Your task to perform on an android device: change notifications settings Image 0: 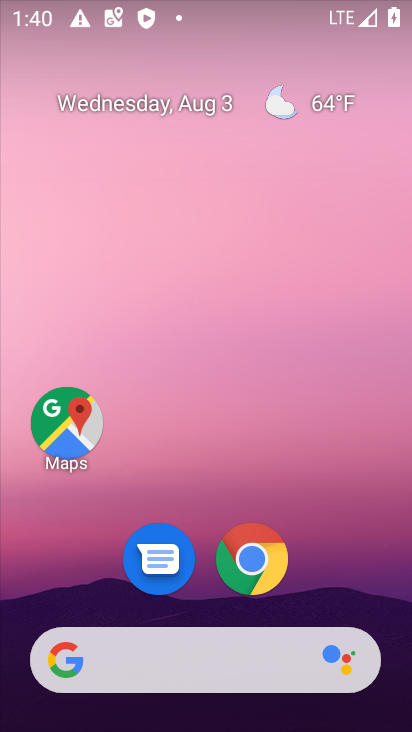
Step 0: drag from (193, 553) to (220, 76)
Your task to perform on an android device: change notifications settings Image 1: 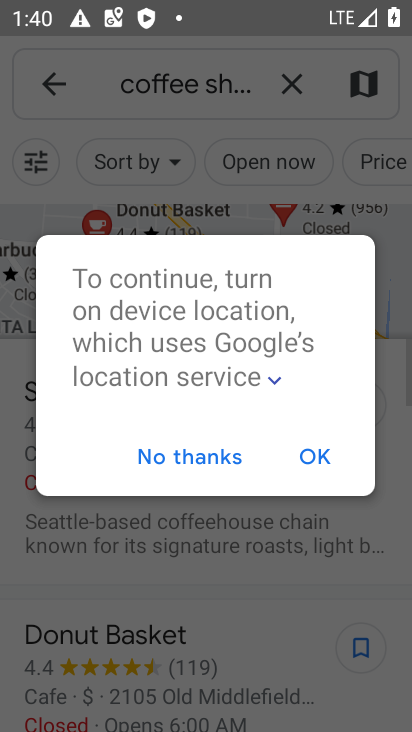
Step 1: press home button
Your task to perform on an android device: change notifications settings Image 2: 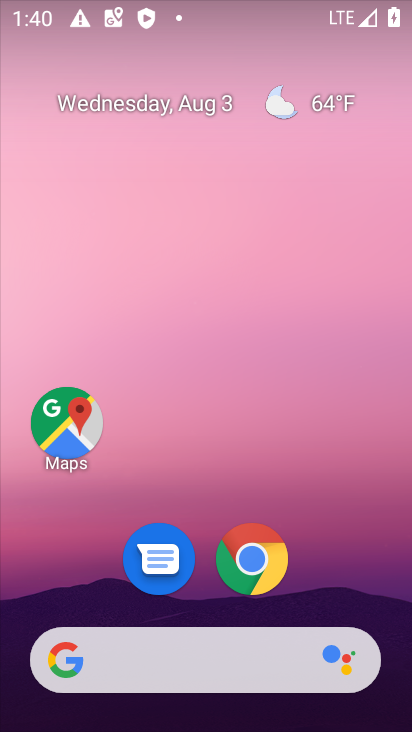
Step 2: drag from (196, 606) to (208, 41)
Your task to perform on an android device: change notifications settings Image 3: 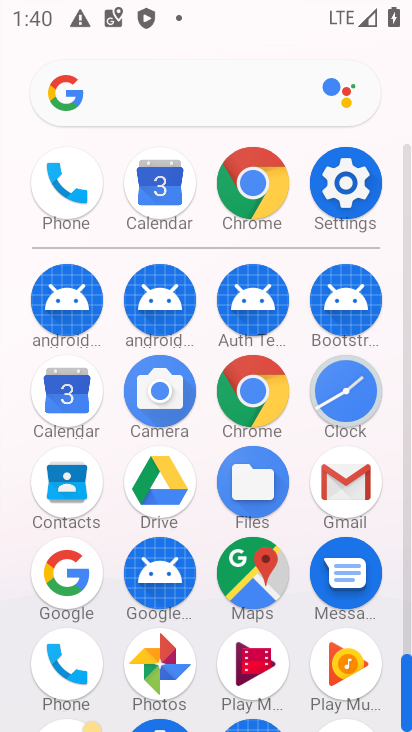
Step 3: click (362, 196)
Your task to perform on an android device: change notifications settings Image 4: 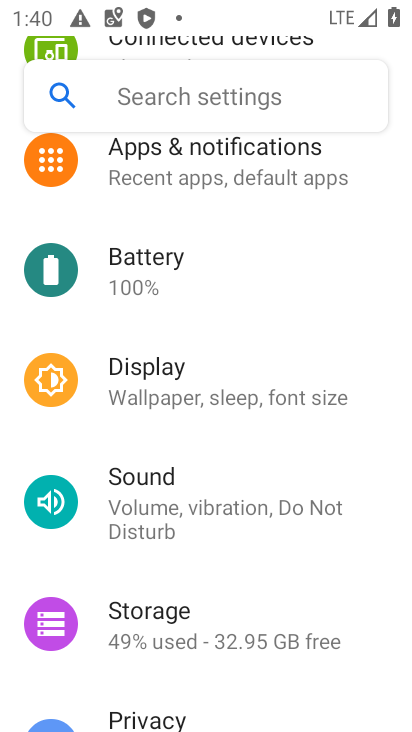
Step 4: click (210, 156)
Your task to perform on an android device: change notifications settings Image 5: 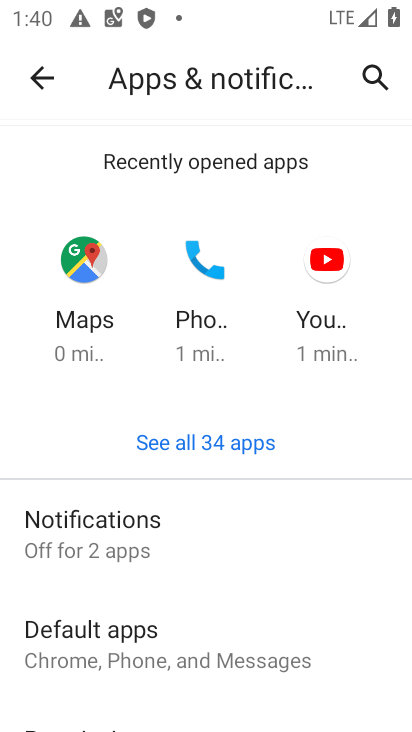
Step 5: click (72, 521)
Your task to perform on an android device: change notifications settings Image 6: 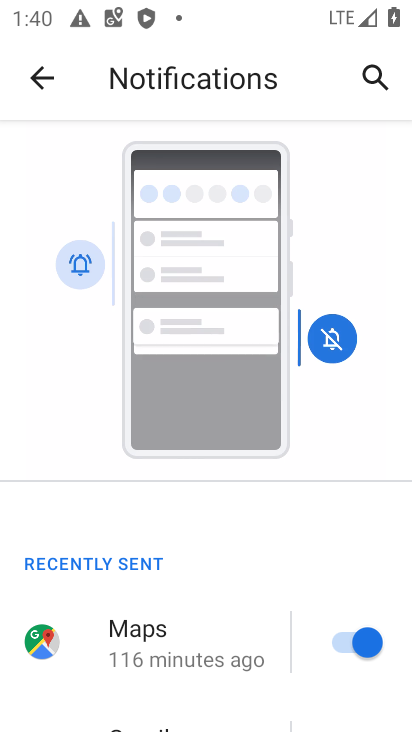
Step 6: drag from (147, 684) to (170, 386)
Your task to perform on an android device: change notifications settings Image 7: 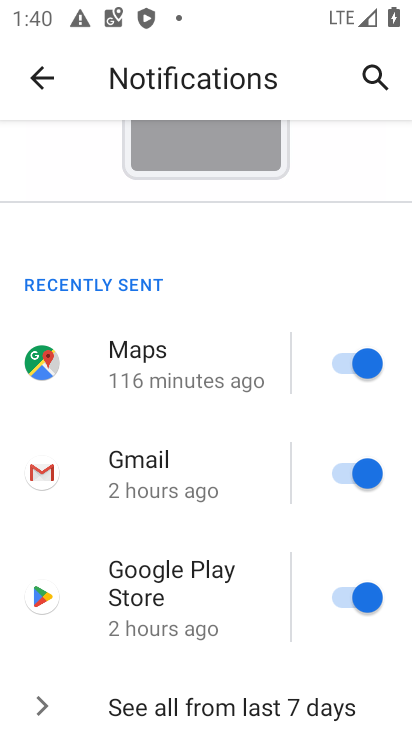
Step 7: drag from (130, 679) to (153, 301)
Your task to perform on an android device: change notifications settings Image 8: 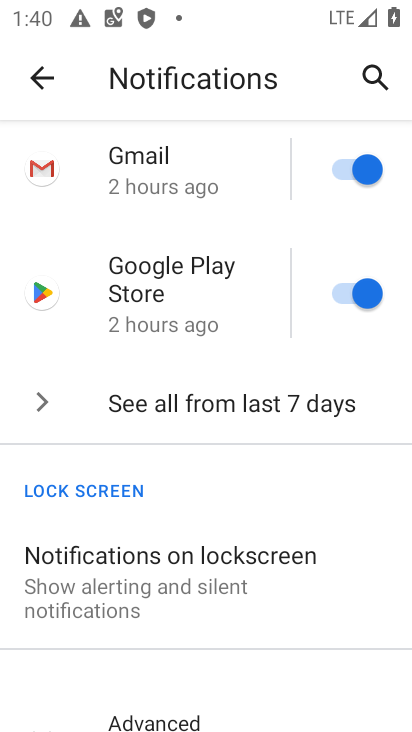
Step 8: drag from (191, 669) to (210, 301)
Your task to perform on an android device: change notifications settings Image 9: 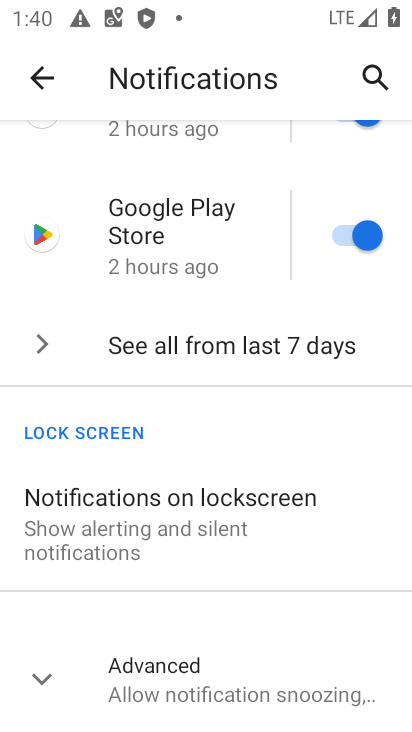
Step 9: click (131, 666)
Your task to perform on an android device: change notifications settings Image 10: 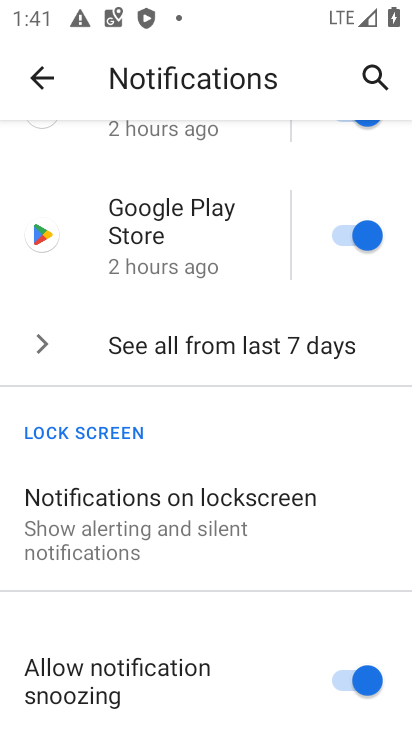
Step 10: click (353, 686)
Your task to perform on an android device: change notifications settings Image 11: 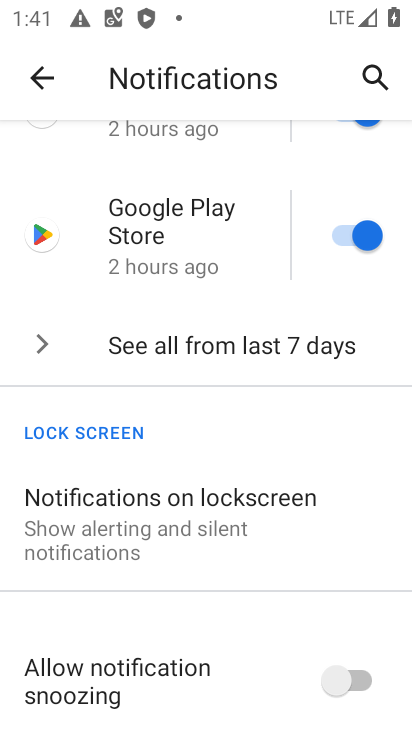
Step 11: task complete